Your task to perform on an android device: Is it going to rain this weekend? Image 0: 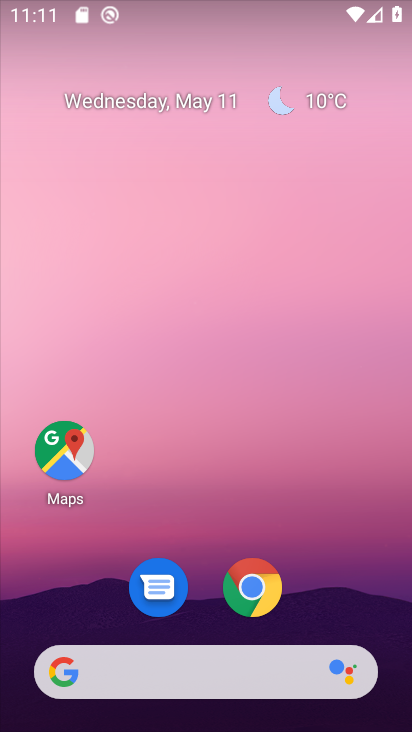
Step 0: drag from (308, 559) to (266, 61)
Your task to perform on an android device: Is it going to rain this weekend? Image 1: 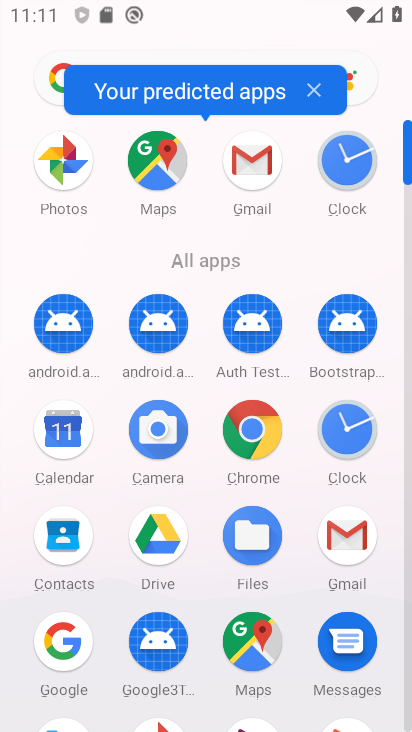
Step 1: click (272, 438)
Your task to perform on an android device: Is it going to rain this weekend? Image 2: 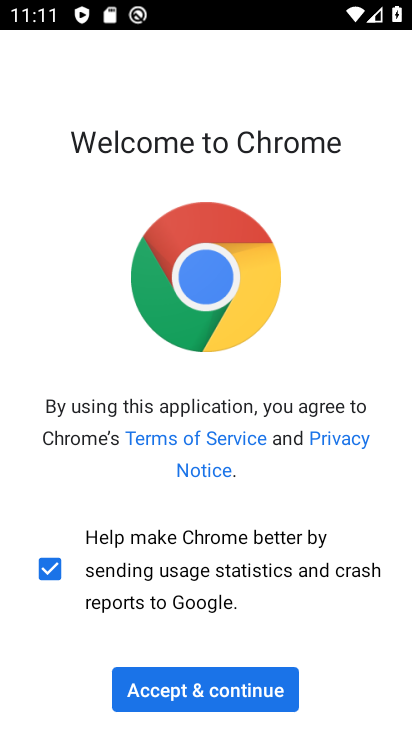
Step 2: click (219, 693)
Your task to perform on an android device: Is it going to rain this weekend? Image 3: 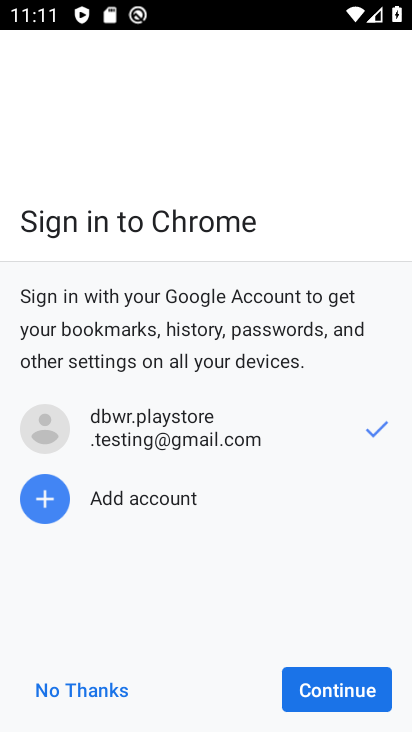
Step 3: click (314, 701)
Your task to perform on an android device: Is it going to rain this weekend? Image 4: 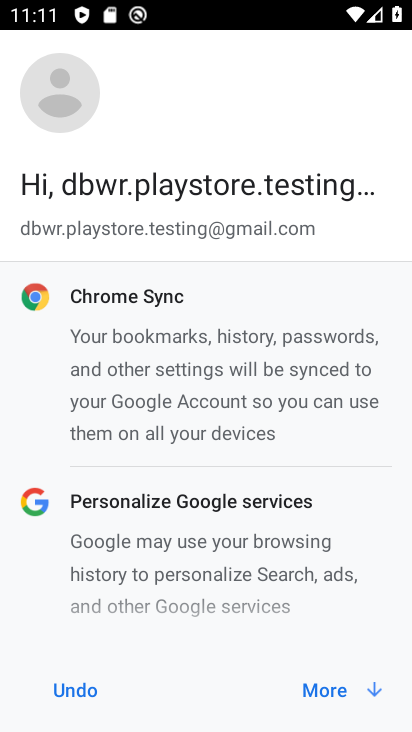
Step 4: click (334, 686)
Your task to perform on an android device: Is it going to rain this weekend? Image 5: 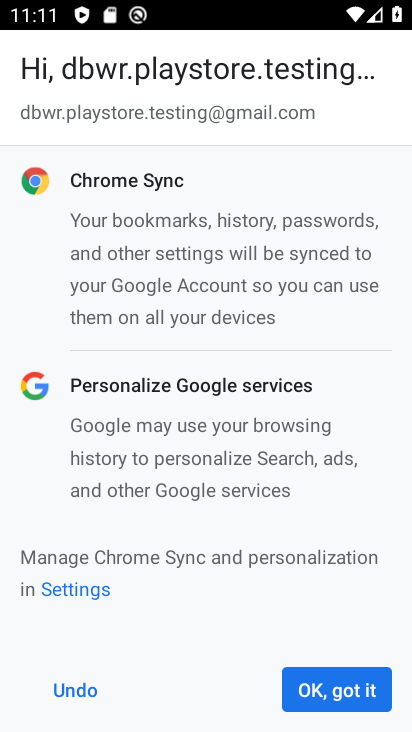
Step 5: click (333, 685)
Your task to perform on an android device: Is it going to rain this weekend? Image 6: 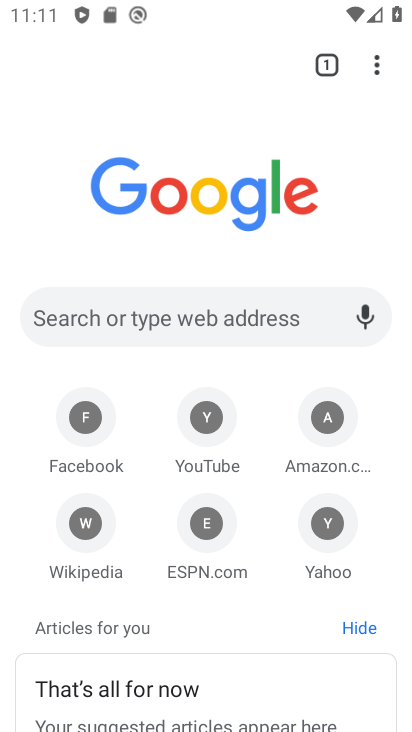
Step 6: click (221, 326)
Your task to perform on an android device: Is it going to rain this weekend? Image 7: 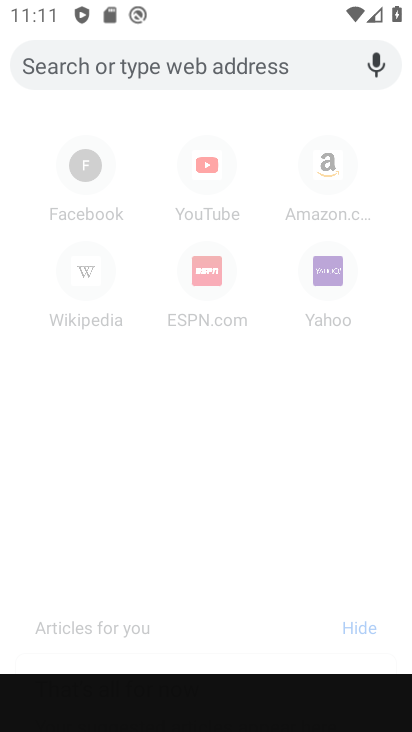
Step 7: click (183, 57)
Your task to perform on an android device: Is it going to rain this weekend? Image 8: 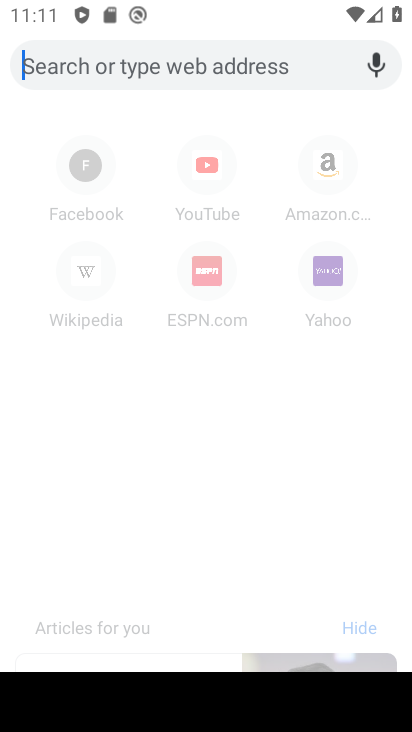
Step 8: click (210, 69)
Your task to perform on an android device: Is it going to rain this weekend? Image 9: 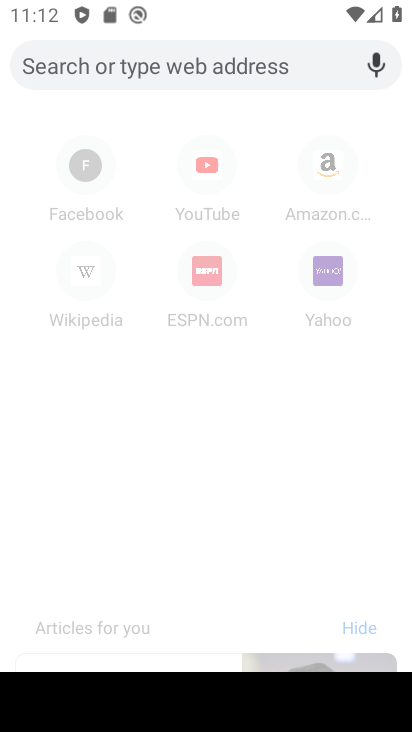
Step 9: click (153, 72)
Your task to perform on an android device: Is it going to rain this weekend? Image 10: 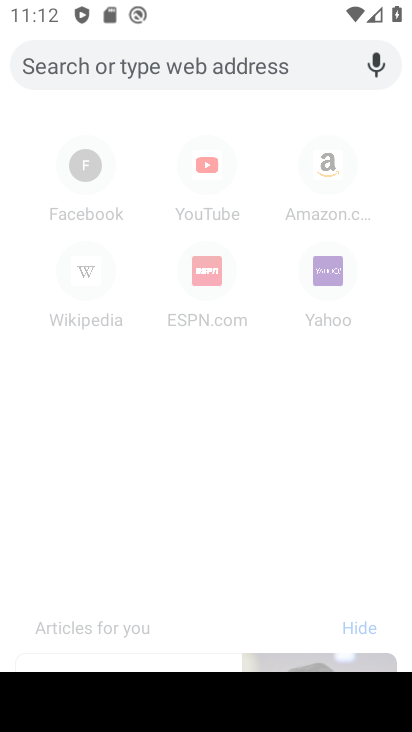
Step 10: type "is it going to rain this weekend"
Your task to perform on an android device: Is it going to rain this weekend? Image 11: 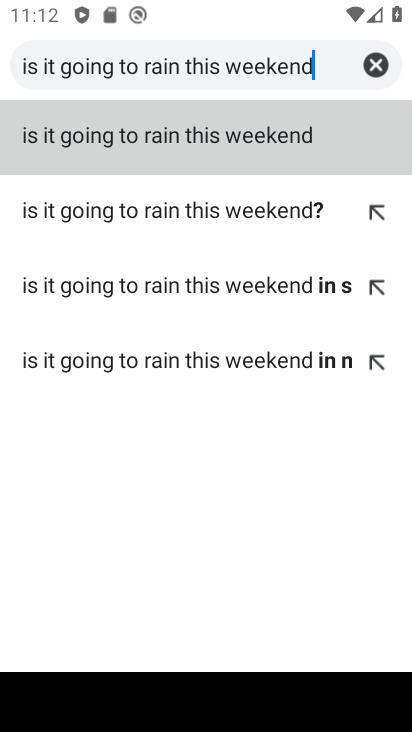
Step 11: click (159, 147)
Your task to perform on an android device: Is it going to rain this weekend? Image 12: 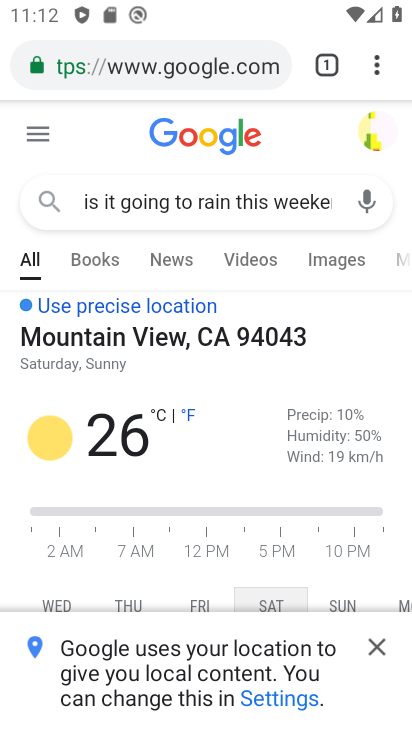
Step 12: task complete